Your task to perform on an android device: make emails show in primary in the gmail app Image 0: 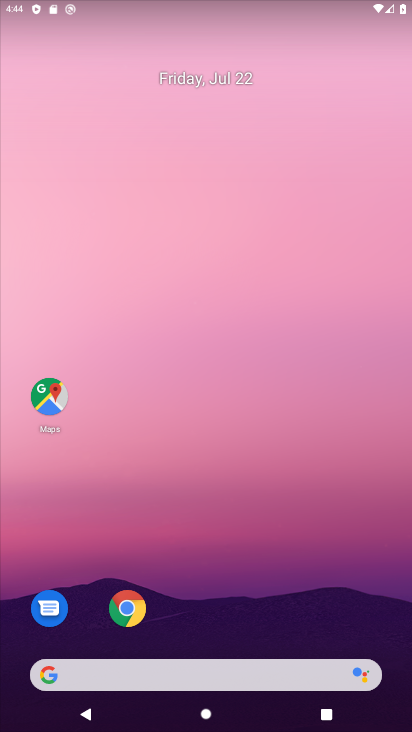
Step 0: drag from (183, 601) to (280, 77)
Your task to perform on an android device: make emails show in primary in the gmail app Image 1: 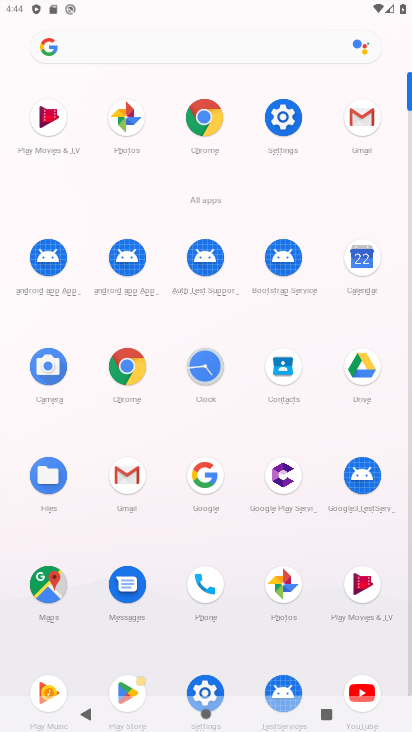
Step 1: click (365, 128)
Your task to perform on an android device: make emails show in primary in the gmail app Image 2: 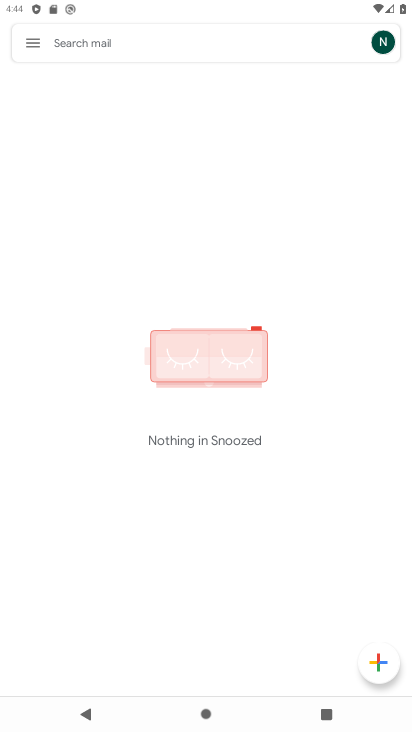
Step 2: click (26, 50)
Your task to perform on an android device: make emails show in primary in the gmail app Image 3: 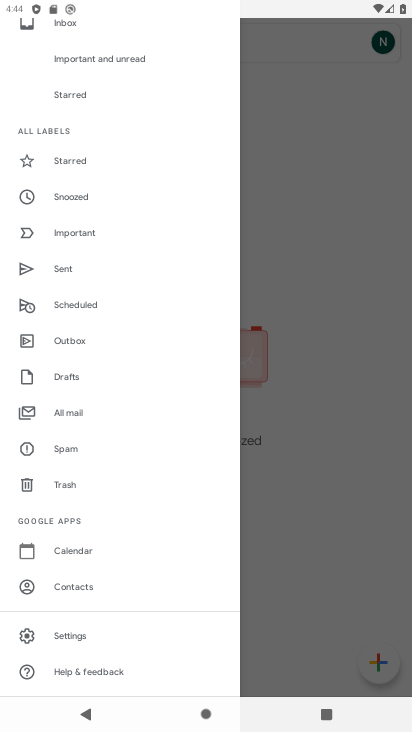
Step 3: task complete